Your task to perform on an android device: Open Amazon Image 0: 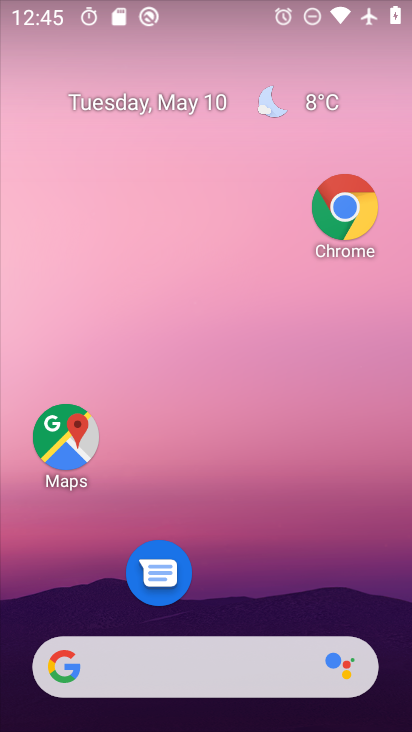
Step 0: drag from (311, 528) to (221, 88)
Your task to perform on an android device: Open Amazon Image 1: 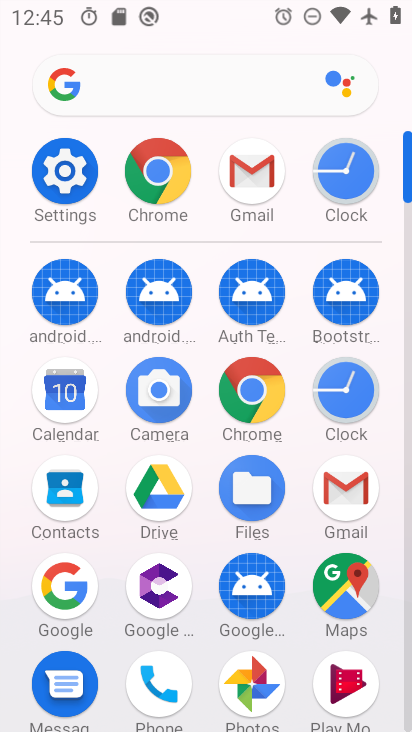
Step 1: click (256, 393)
Your task to perform on an android device: Open Amazon Image 2: 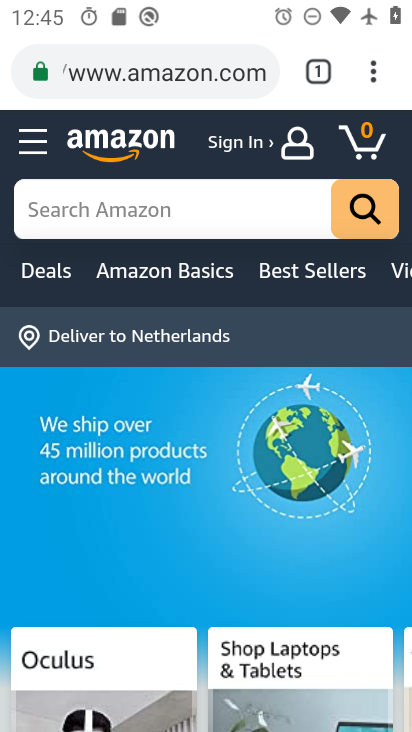
Step 2: task complete